Your task to perform on an android device: search for starred emails in the gmail app Image 0: 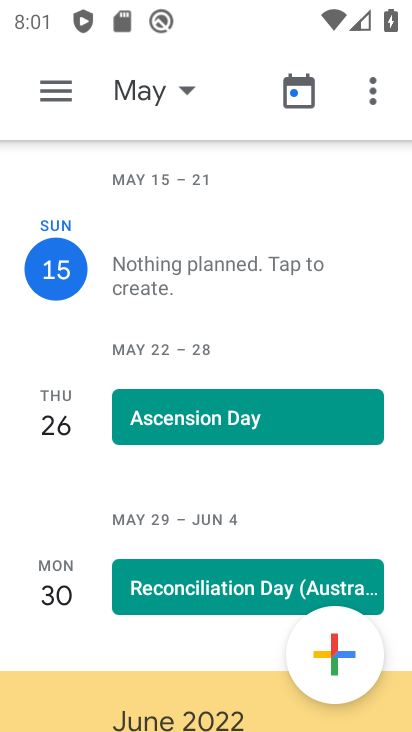
Step 0: press home button
Your task to perform on an android device: search for starred emails in the gmail app Image 1: 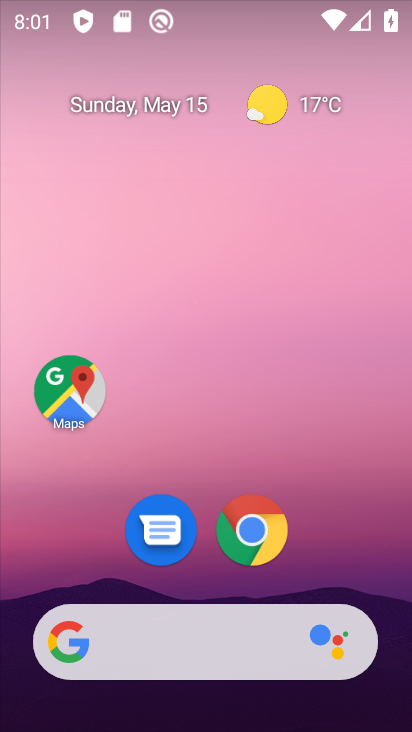
Step 1: drag from (201, 657) to (204, 167)
Your task to perform on an android device: search for starred emails in the gmail app Image 2: 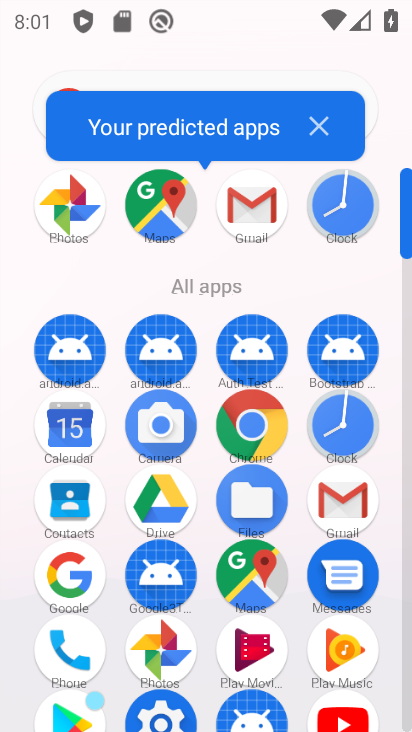
Step 2: click (339, 505)
Your task to perform on an android device: search for starred emails in the gmail app Image 3: 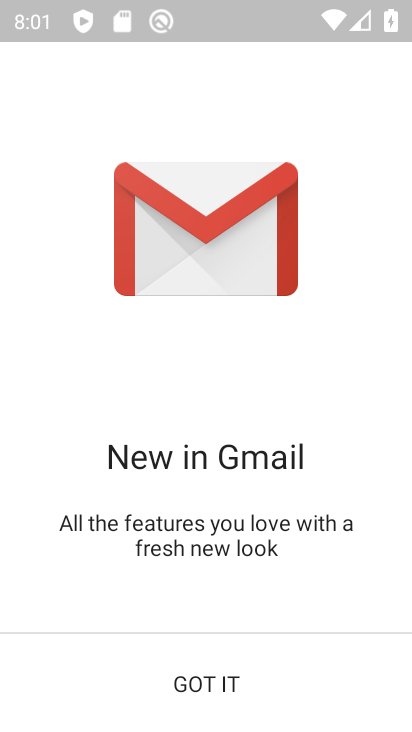
Step 3: click (203, 689)
Your task to perform on an android device: search for starred emails in the gmail app Image 4: 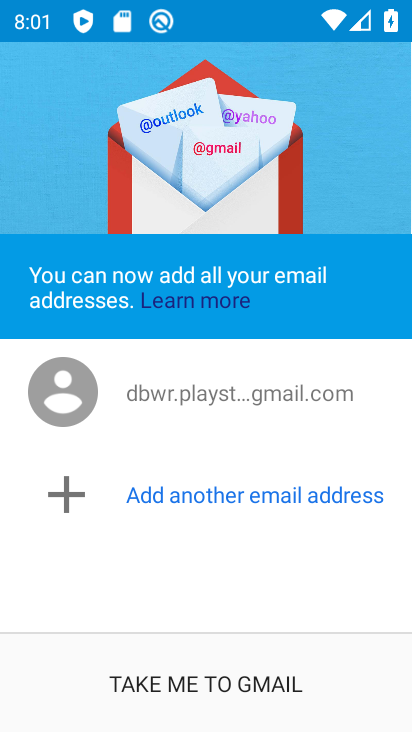
Step 4: click (185, 681)
Your task to perform on an android device: search for starred emails in the gmail app Image 5: 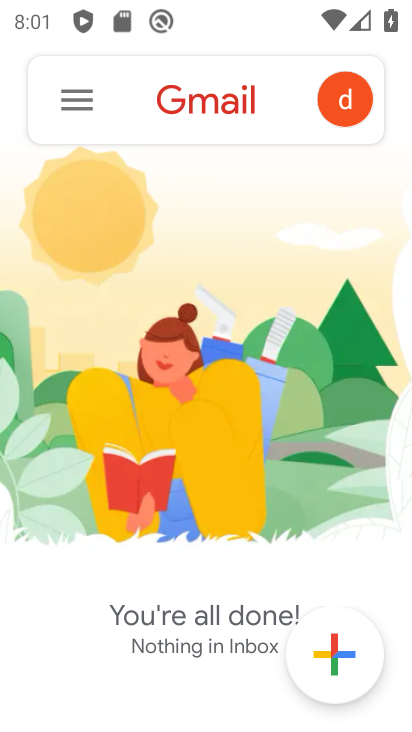
Step 5: click (71, 99)
Your task to perform on an android device: search for starred emails in the gmail app Image 6: 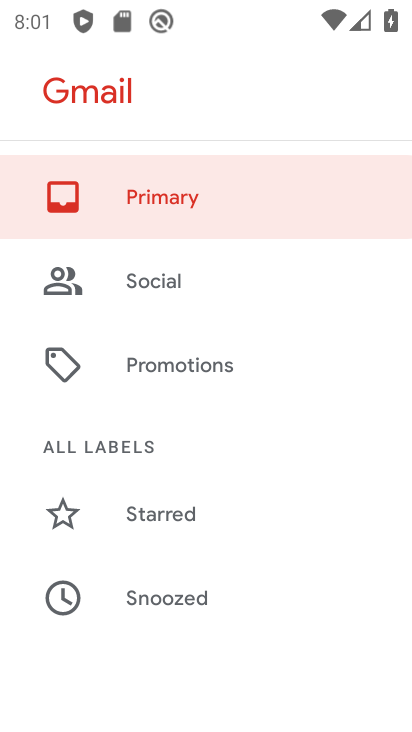
Step 6: click (152, 517)
Your task to perform on an android device: search for starred emails in the gmail app Image 7: 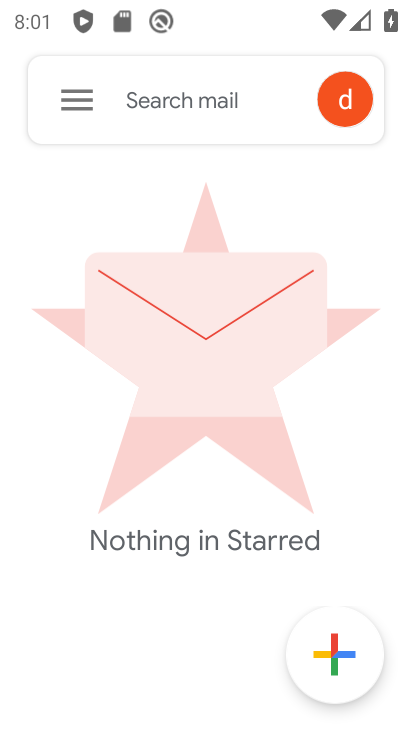
Step 7: task complete